Your task to perform on an android device: Open Chrome and go to the settings page Image 0: 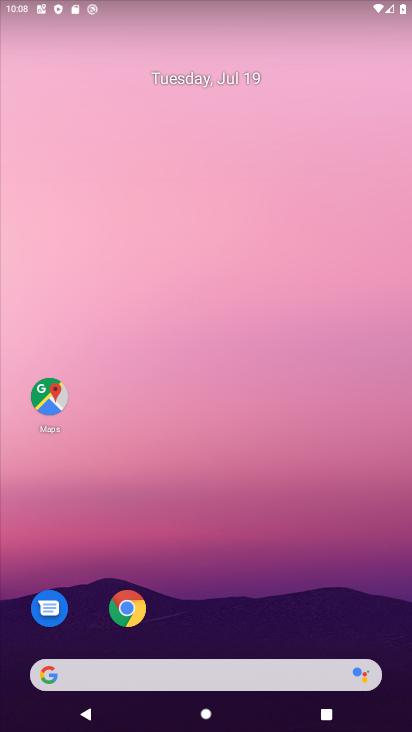
Step 0: drag from (194, 642) to (166, 155)
Your task to perform on an android device: Open Chrome and go to the settings page Image 1: 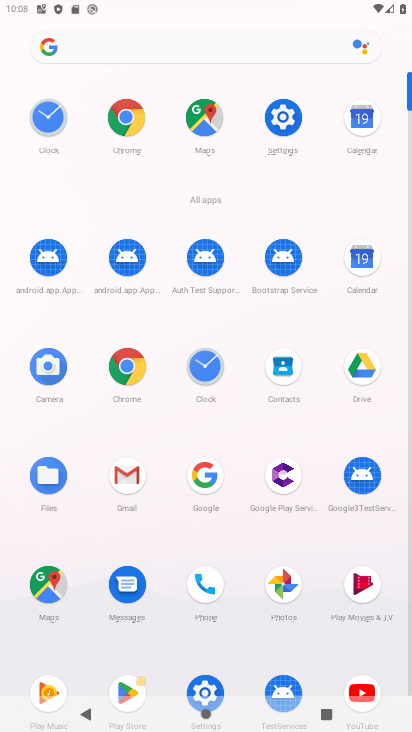
Step 1: click (130, 359)
Your task to perform on an android device: Open Chrome and go to the settings page Image 2: 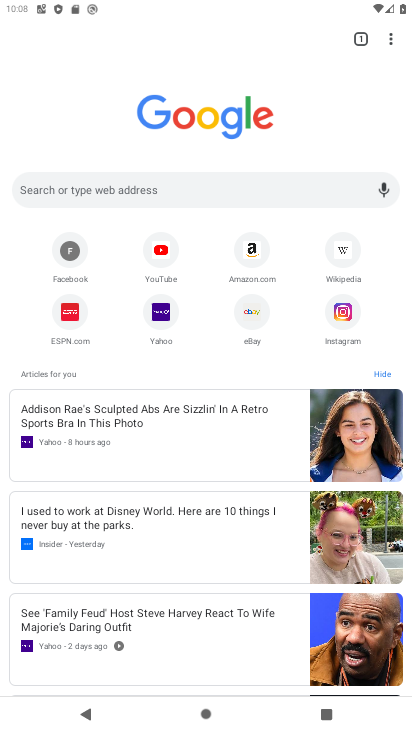
Step 2: click (393, 39)
Your task to perform on an android device: Open Chrome and go to the settings page Image 3: 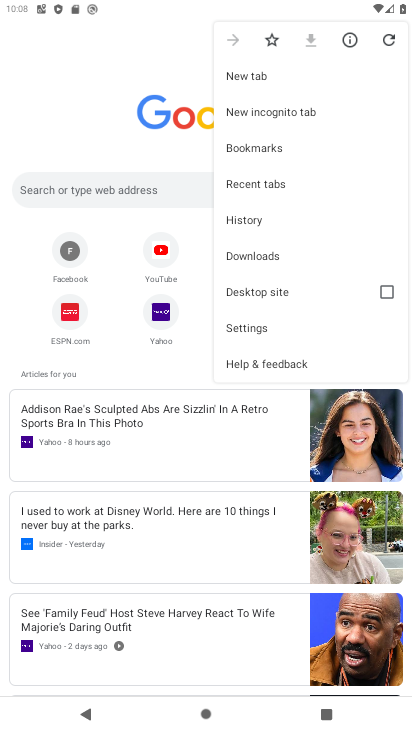
Step 3: click (237, 331)
Your task to perform on an android device: Open Chrome and go to the settings page Image 4: 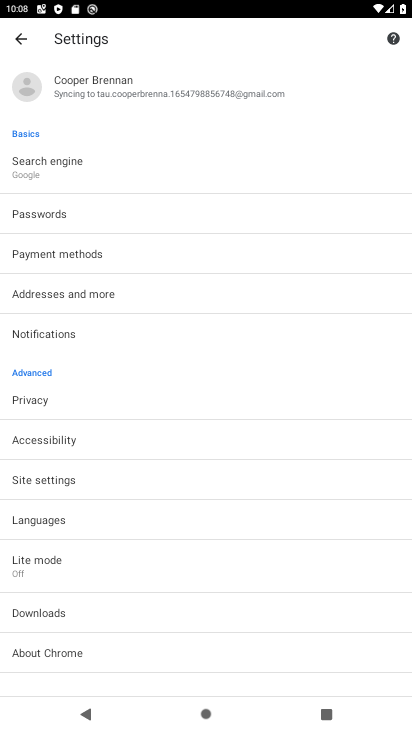
Step 4: task complete